Your task to perform on an android device: open app "Google Translate" (install if not already installed) Image 0: 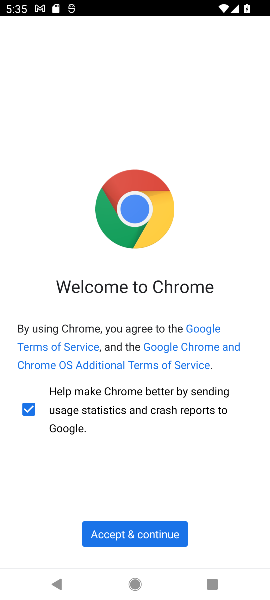
Step 0: press home button
Your task to perform on an android device: open app "Google Translate" (install if not already installed) Image 1: 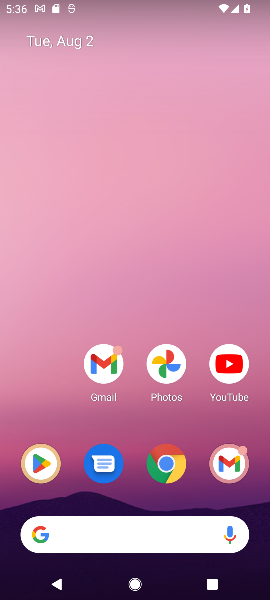
Step 1: click (43, 463)
Your task to perform on an android device: open app "Google Translate" (install if not already installed) Image 2: 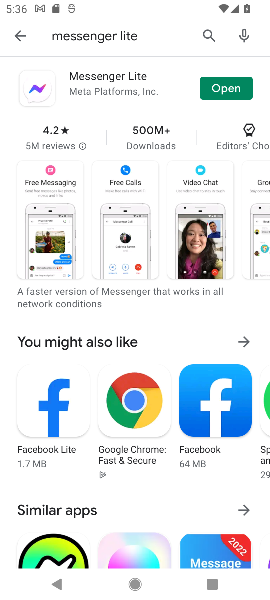
Step 2: click (209, 24)
Your task to perform on an android device: open app "Google Translate" (install if not already installed) Image 3: 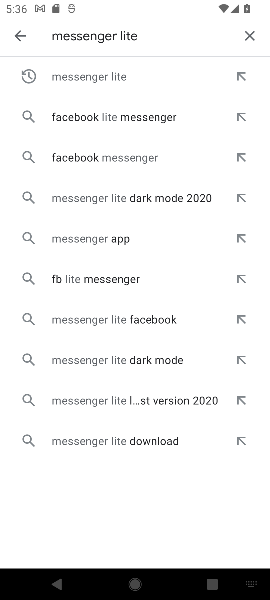
Step 3: click (253, 36)
Your task to perform on an android device: open app "Google Translate" (install if not already installed) Image 4: 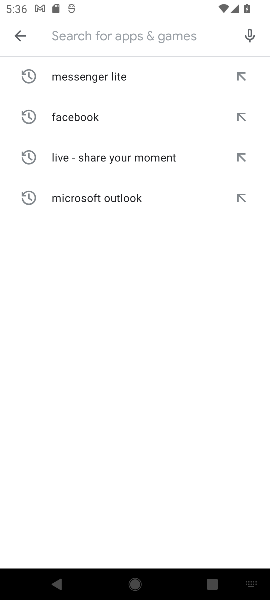
Step 4: type "Google Translate"
Your task to perform on an android device: open app "Google Translate" (install if not already installed) Image 5: 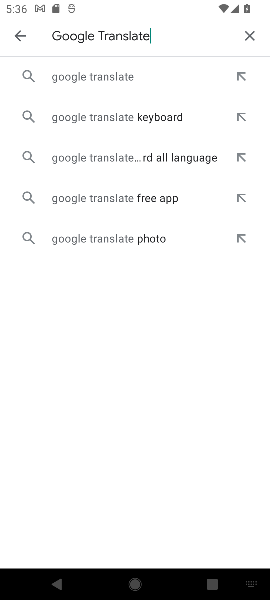
Step 5: click (99, 75)
Your task to perform on an android device: open app "Google Translate" (install if not already installed) Image 6: 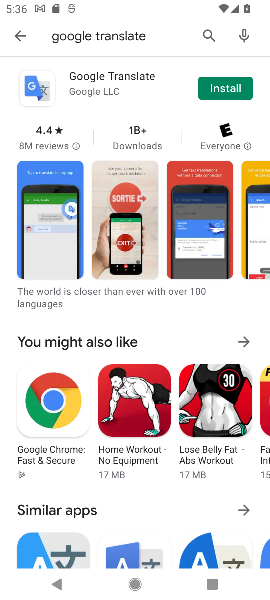
Step 6: click (217, 88)
Your task to perform on an android device: open app "Google Translate" (install if not already installed) Image 7: 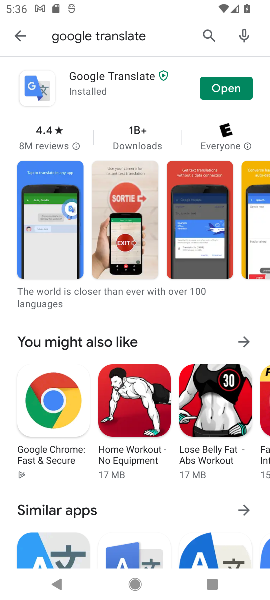
Step 7: click (222, 89)
Your task to perform on an android device: open app "Google Translate" (install if not already installed) Image 8: 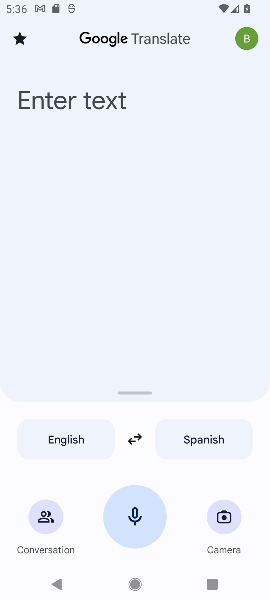
Step 8: task complete